Your task to perform on an android device: open wifi settings Image 0: 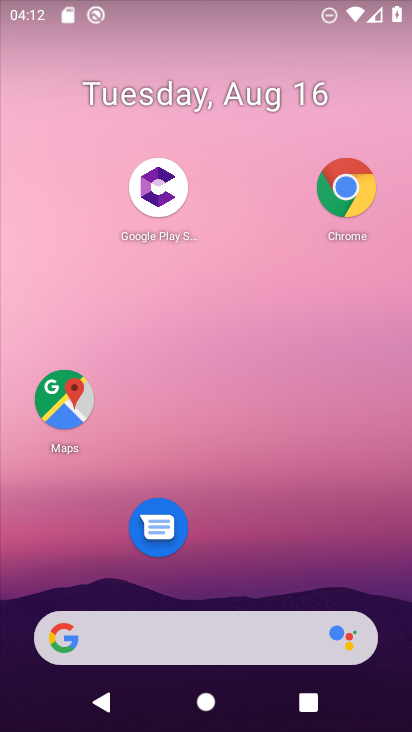
Step 0: drag from (238, 590) to (244, 9)
Your task to perform on an android device: open wifi settings Image 1: 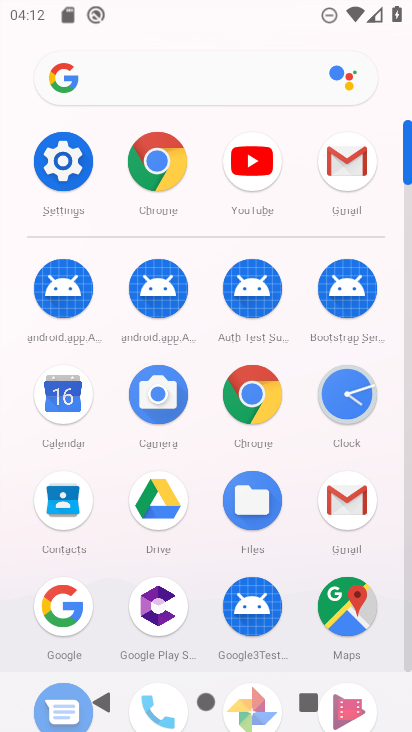
Step 1: click (60, 156)
Your task to perform on an android device: open wifi settings Image 2: 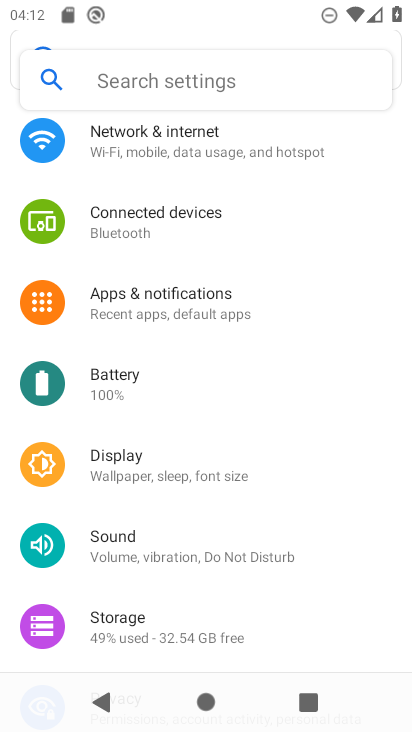
Step 2: click (219, 134)
Your task to perform on an android device: open wifi settings Image 3: 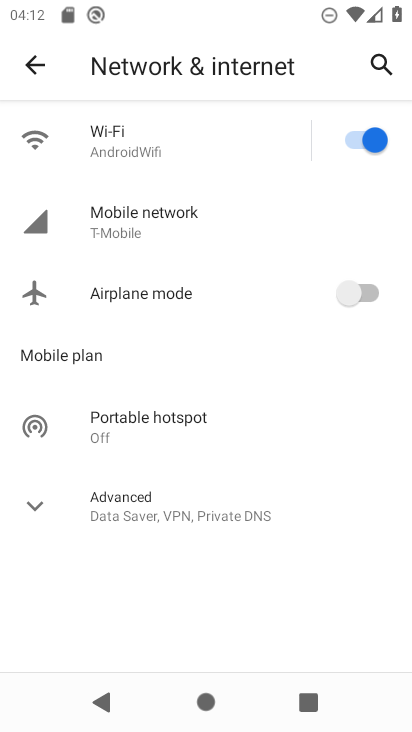
Step 3: click (33, 501)
Your task to perform on an android device: open wifi settings Image 4: 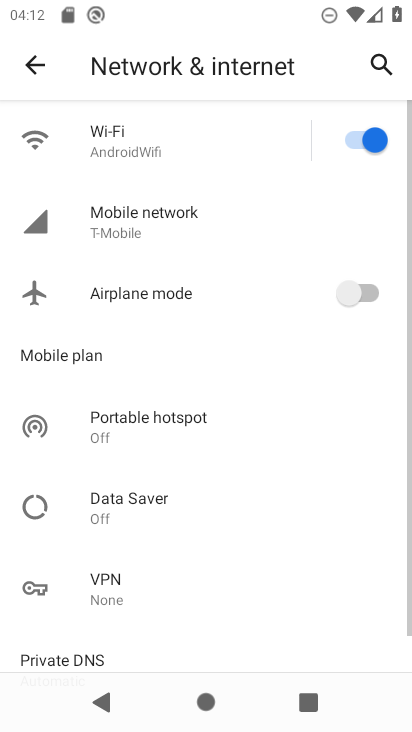
Step 4: drag from (184, 601) to (197, 129)
Your task to perform on an android device: open wifi settings Image 5: 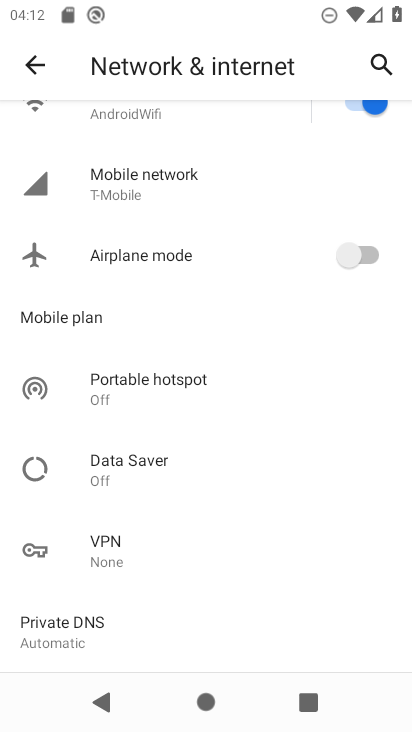
Step 5: drag from (233, 615) to (234, 122)
Your task to perform on an android device: open wifi settings Image 6: 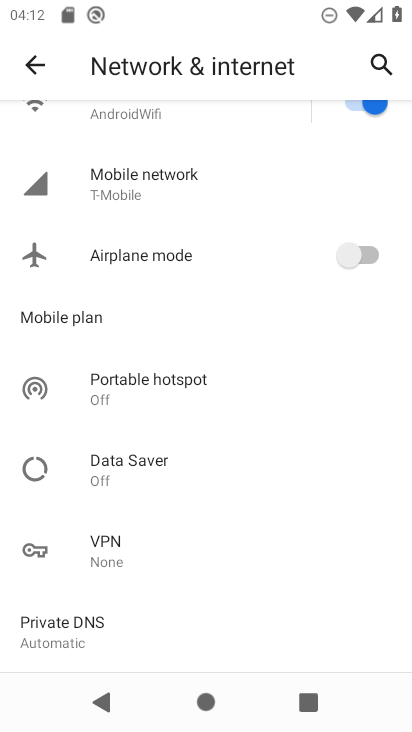
Step 6: drag from (216, 128) to (212, 626)
Your task to perform on an android device: open wifi settings Image 7: 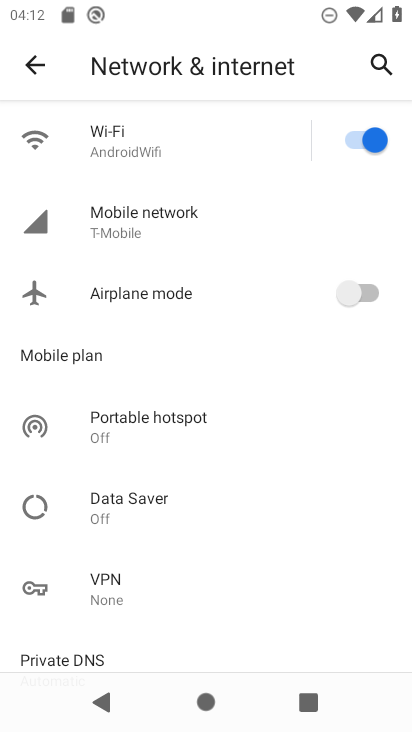
Step 7: click (178, 132)
Your task to perform on an android device: open wifi settings Image 8: 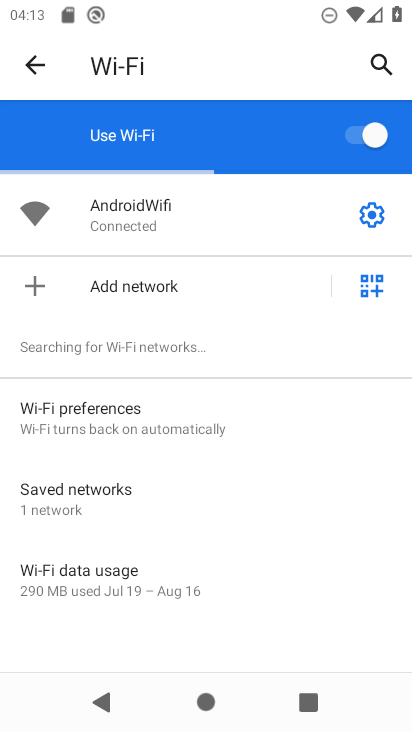
Step 8: task complete